Your task to perform on an android device: Search for flights from NYC to Mexico city Image 0: 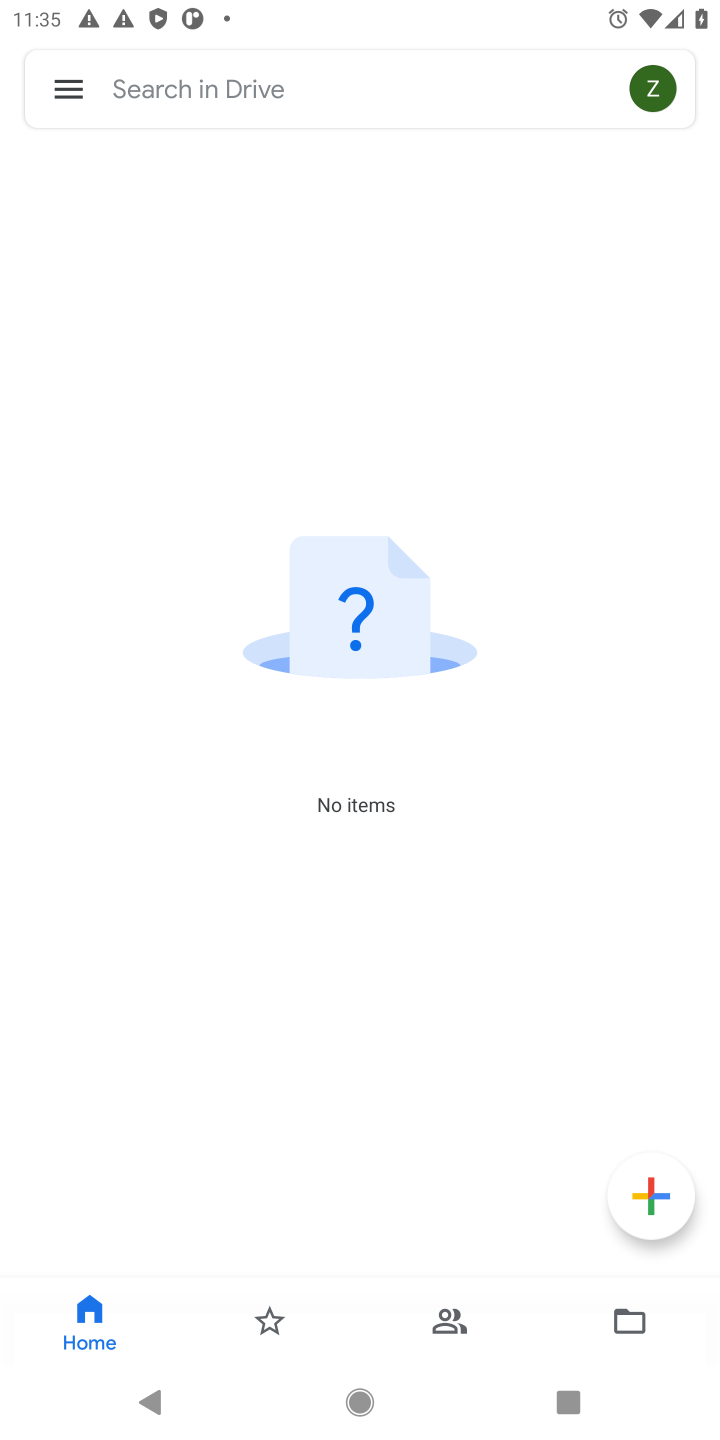
Step 0: press home button
Your task to perform on an android device: Search for flights from NYC to Mexico city Image 1: 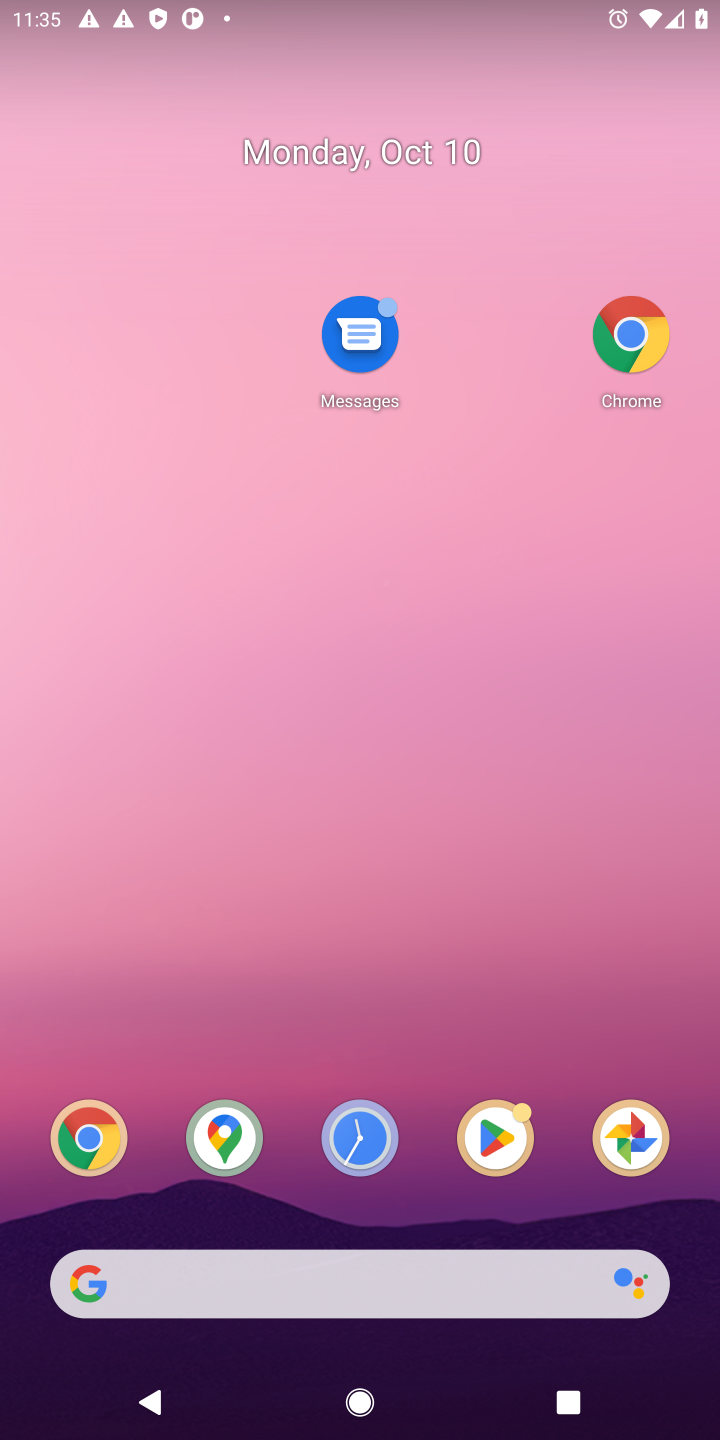
Step 1: click (621, 313)
Your task to perform on an android device: Search for flights from NYC to Mexico city Image 2: 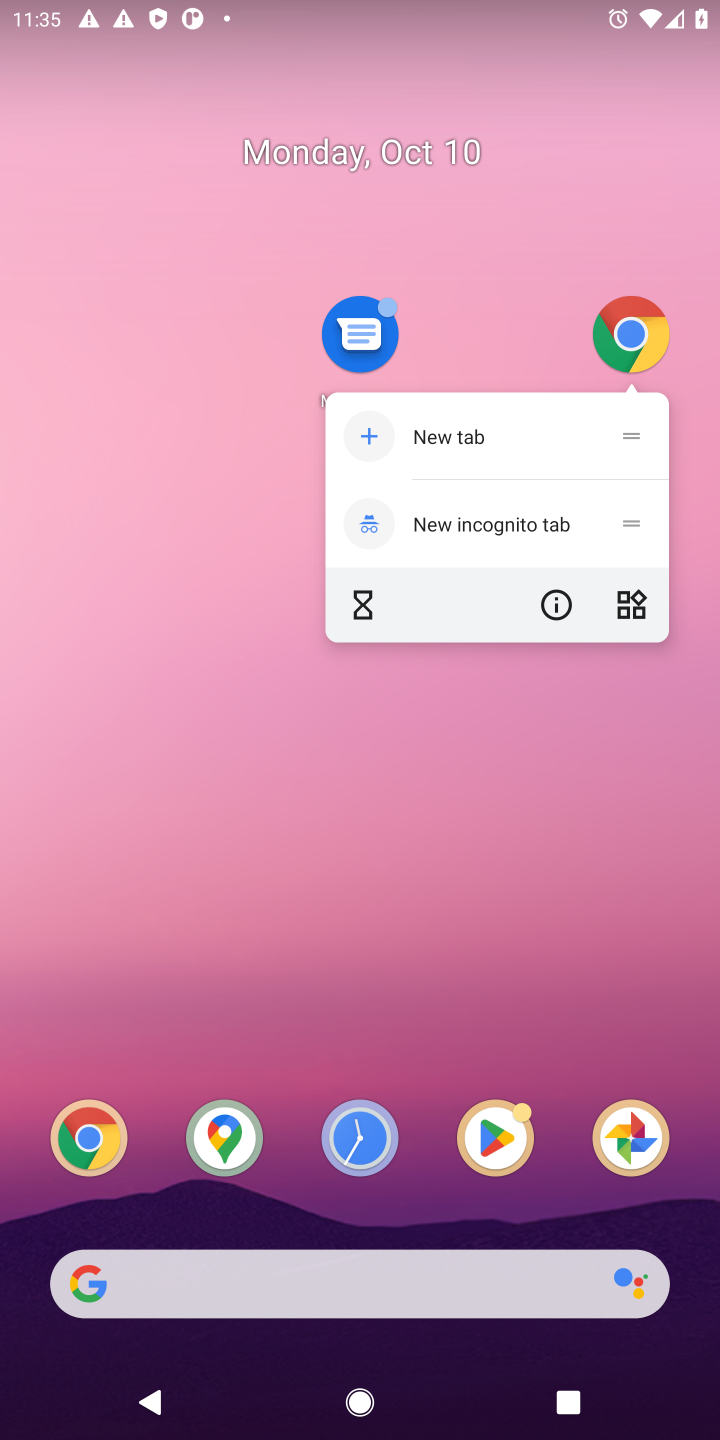
Step 2: click (626, 336)
Your task to perform on an android device: Search for flights from NYC to Mexico city Image 3: 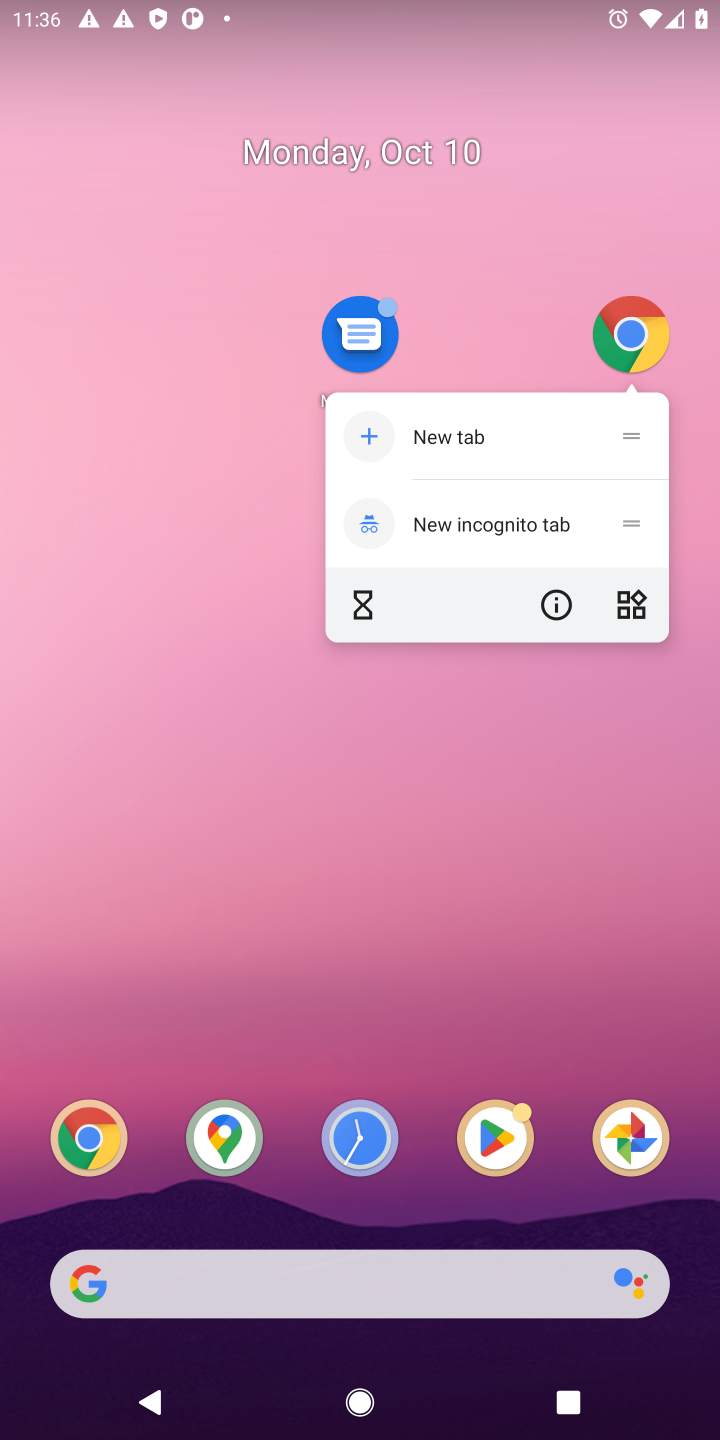
Step 3: click (642, 334)
Your task to perform on an android device: Search for flights from NYC to Mexico city Image 4: 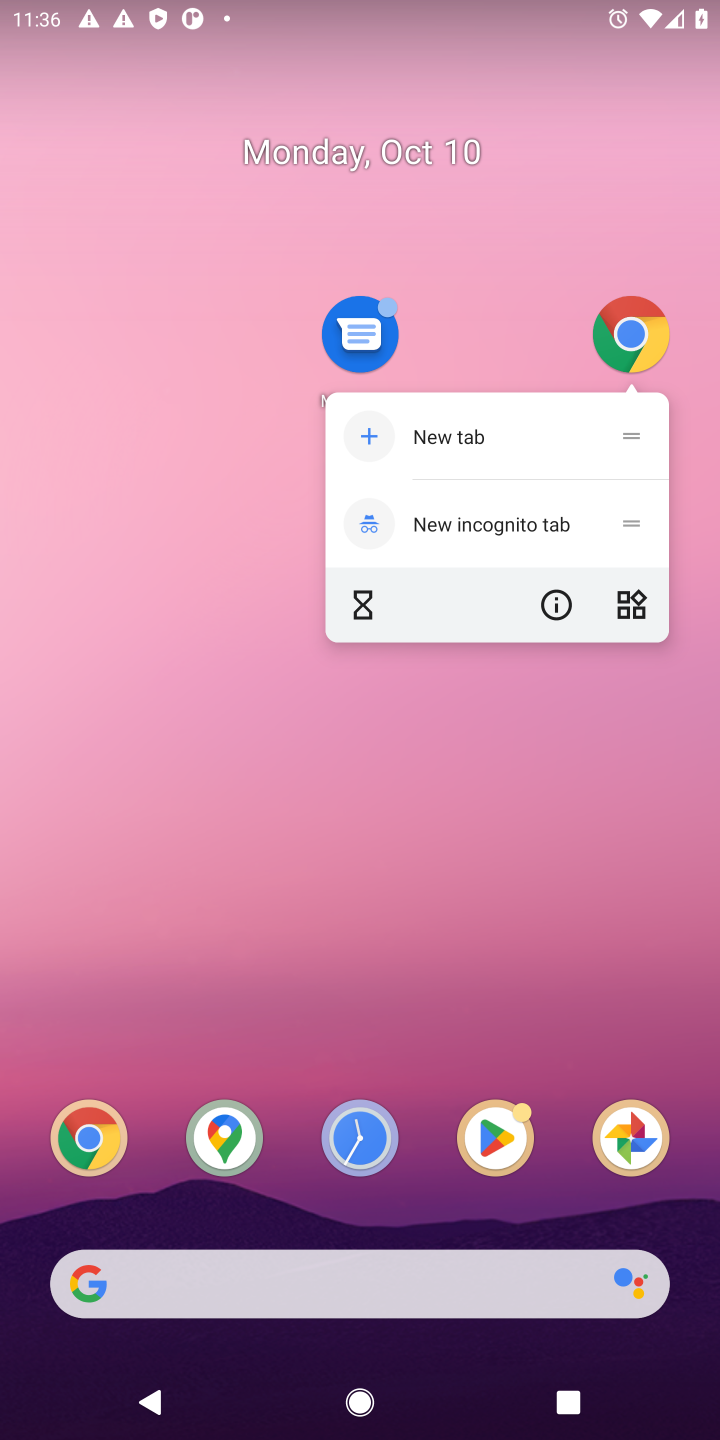
Step 4: click (626, 348)
Your task to perform on an android device: Search for flights from NYC to Mexico city Image 5: 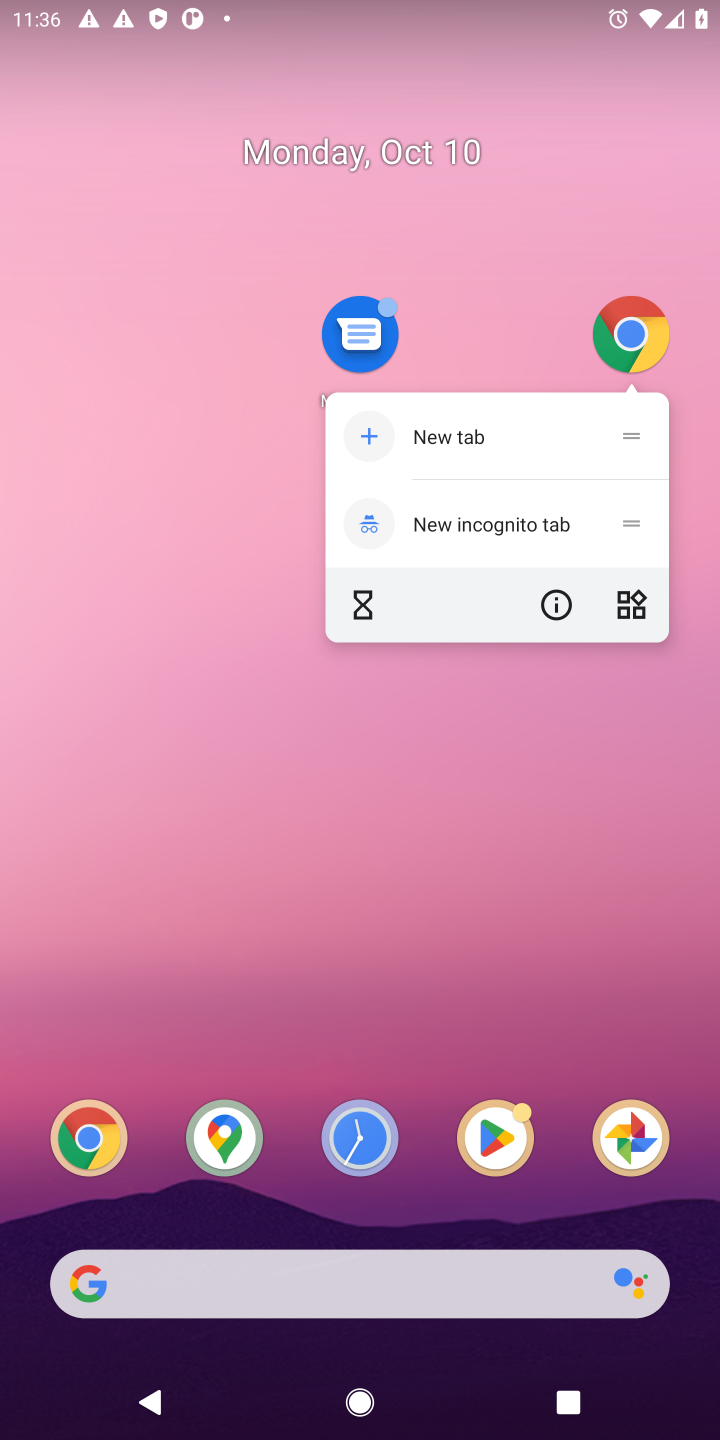
Step 5: click (82, 1146)
Your task to perform on an android device: Search for flights from NYC to Mexico city Image 6: 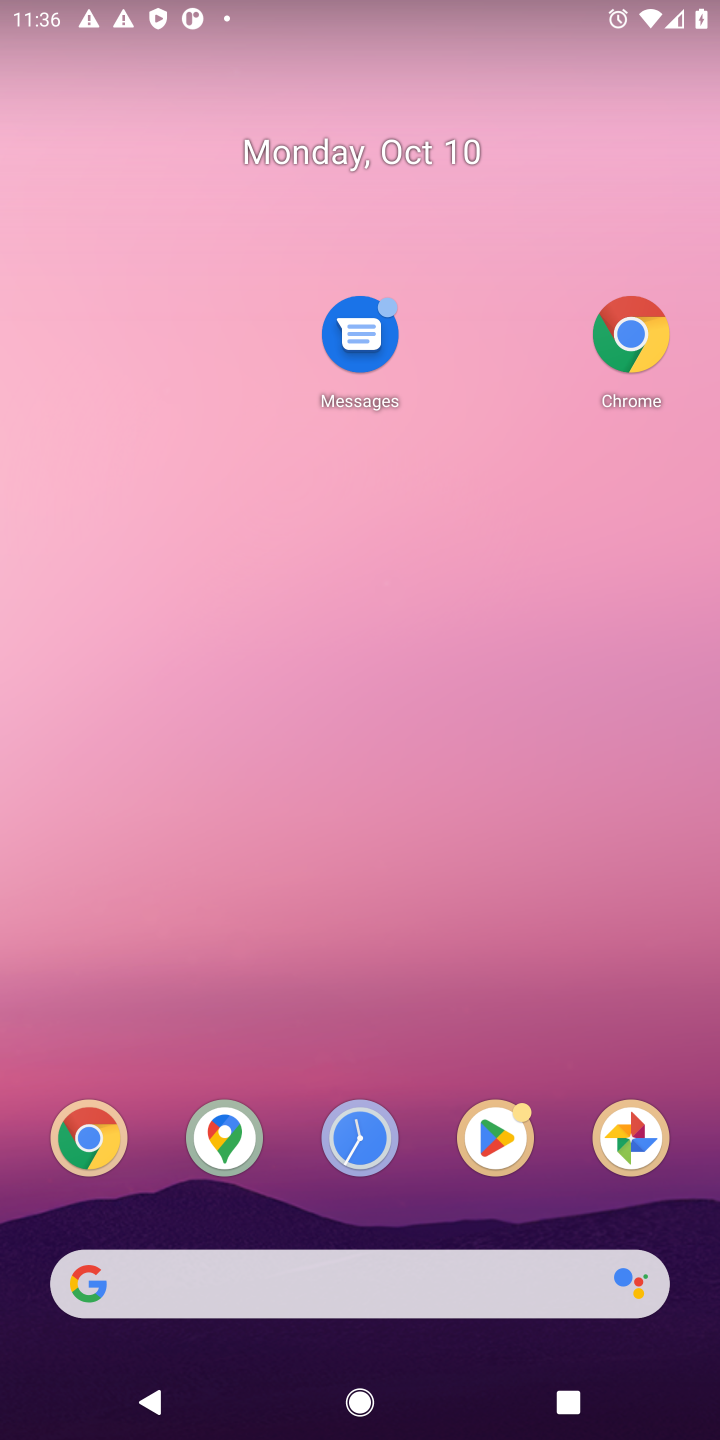
Step 6: click (84, 1154)
Your task to perform on an android device: Search for flights from NYC to Mexico city Image 7: 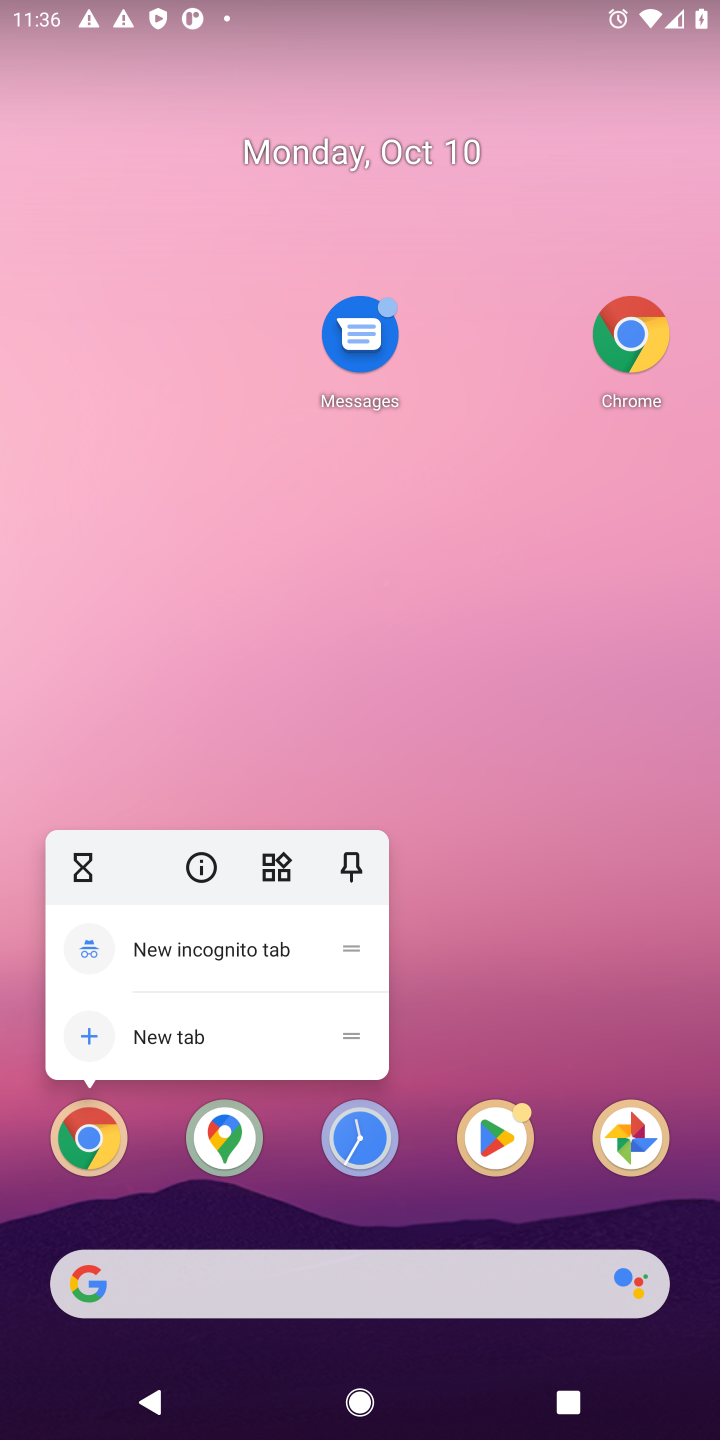
Step 7: click (92, 1158)
Your task to perform on an android device: Search for flights from NYC to Mexico city Image 8: 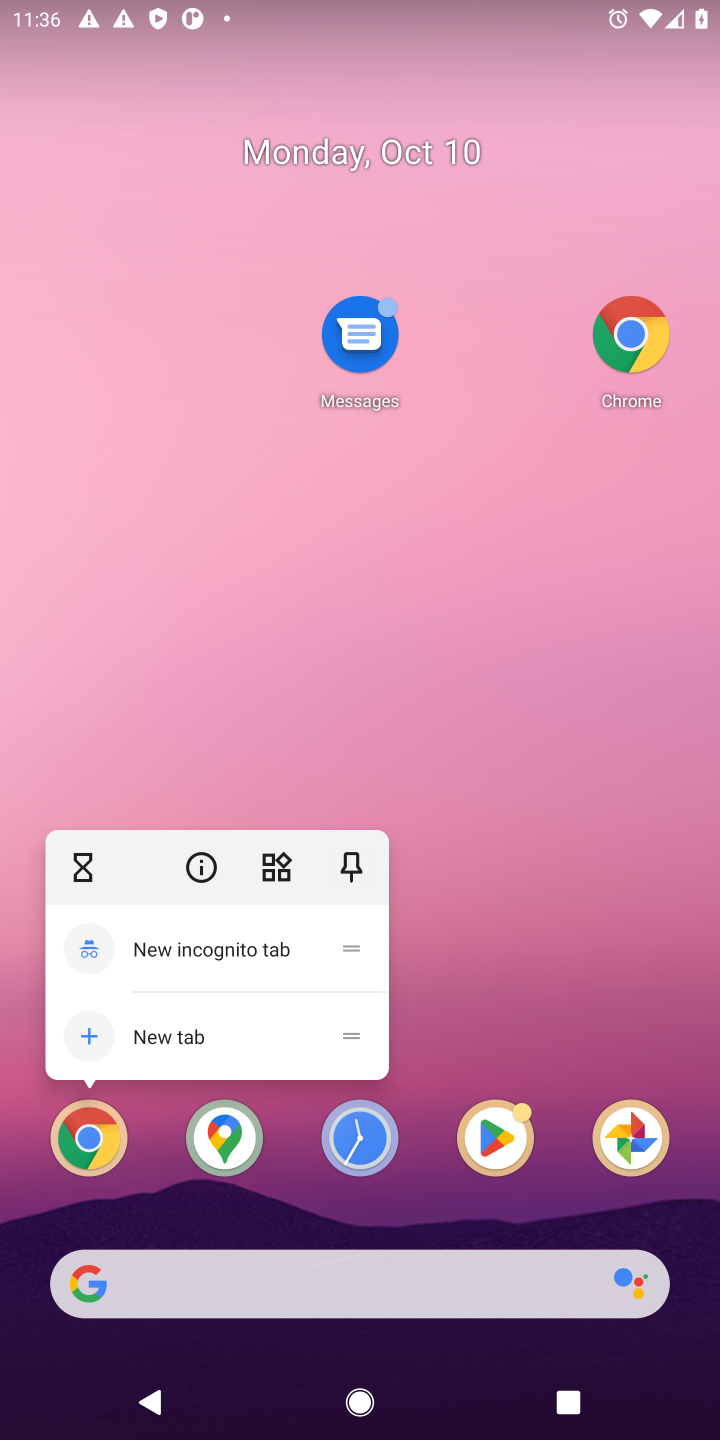
Step 8: click (653, 347)
Your task to perform on an android device: Search for flights from NYC to Mexico city Image 9: 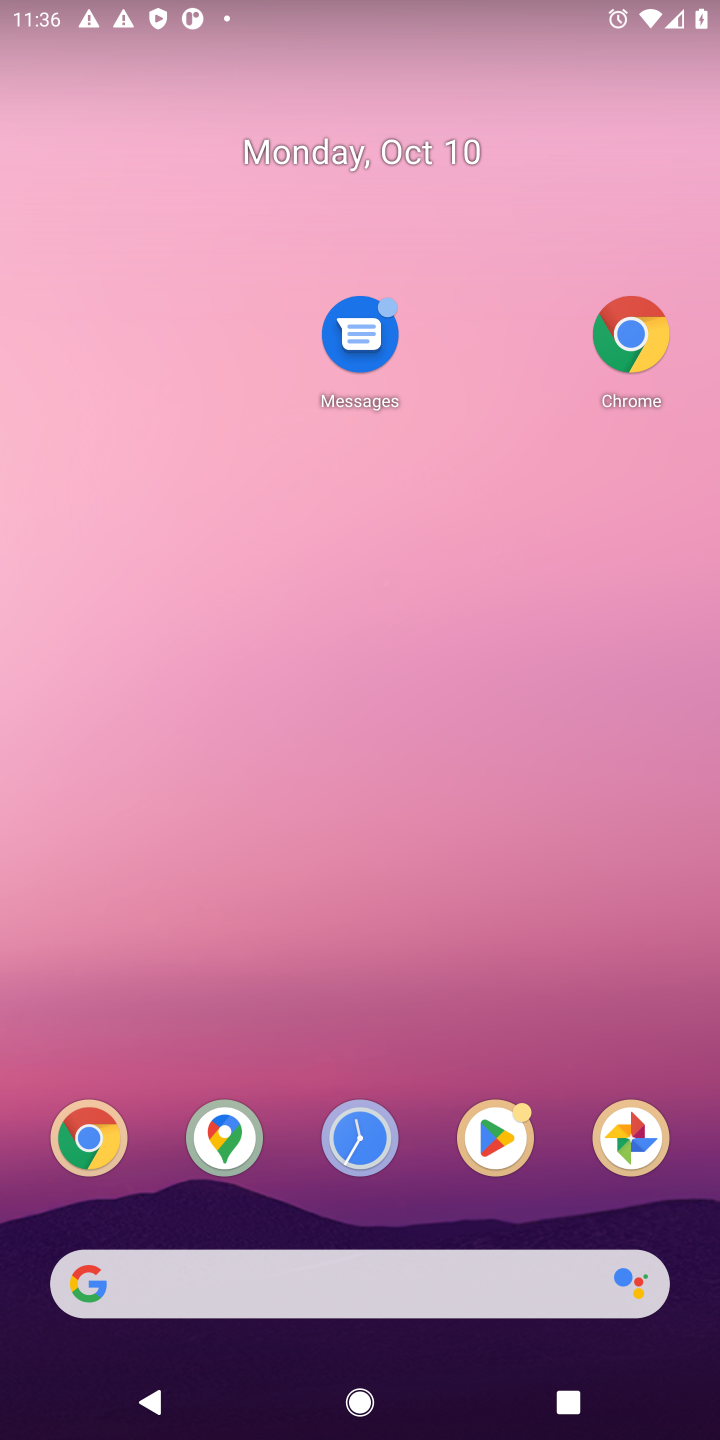
Step 9: click (651, 353)
Your task to perform on an android device: Search for flights from NYC to Mexico city Image 10: 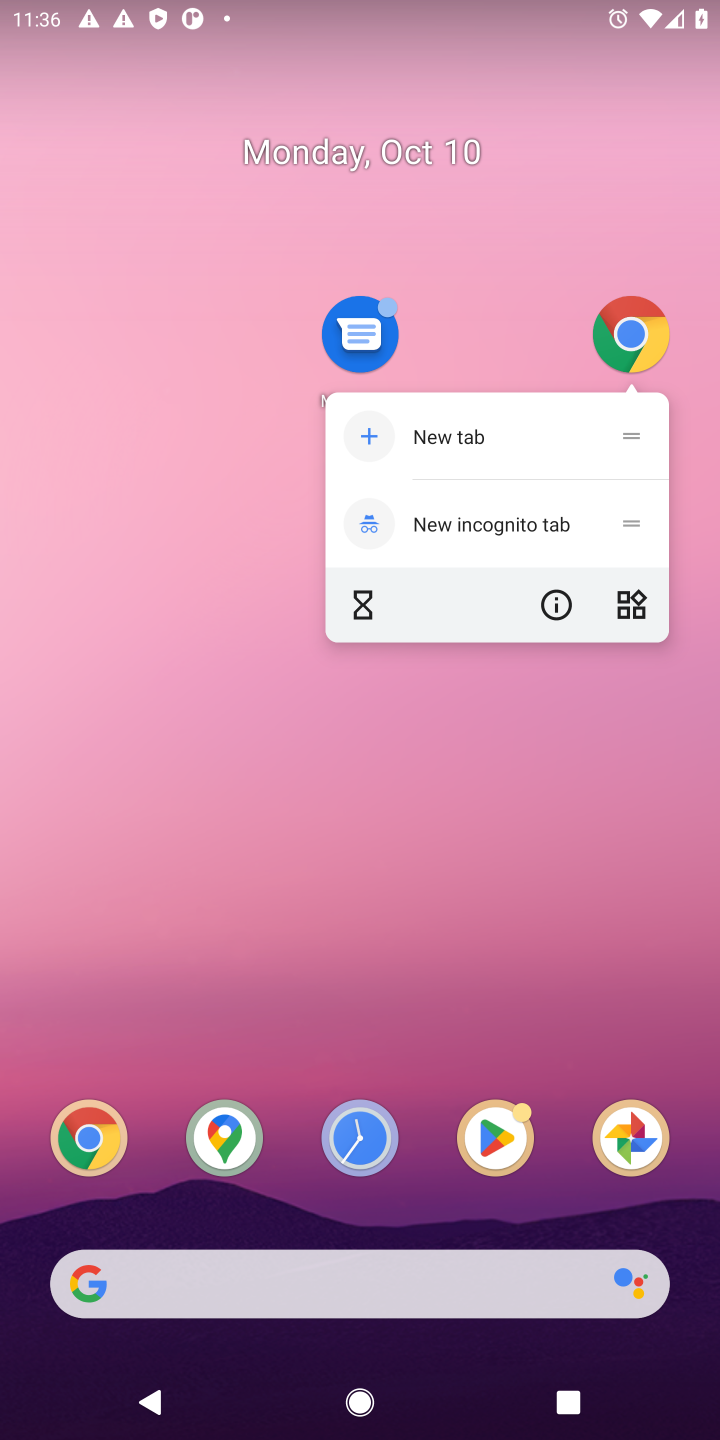
Step 10: click (663, 422)
Your task to perform on an android device: Search for flights from NYC to Mexico city Image 11: 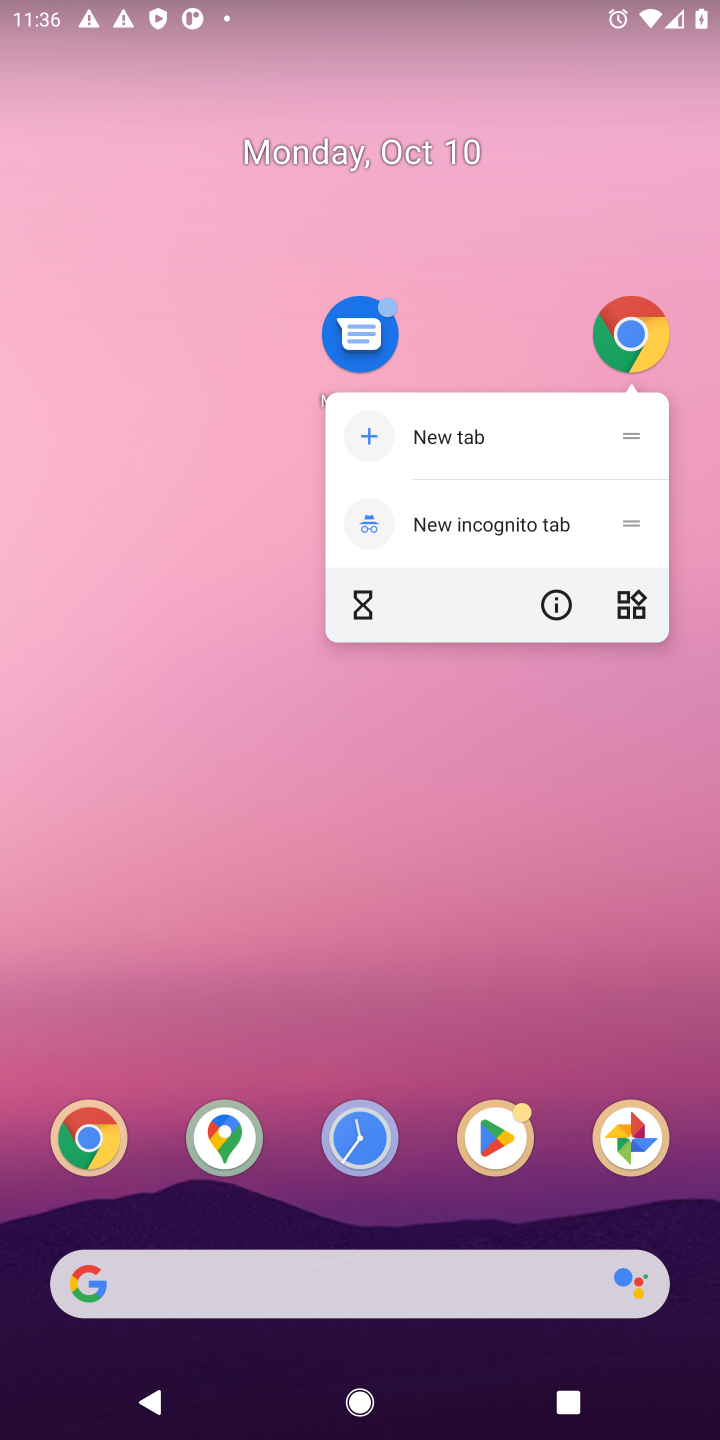
Step 11: click (634, 322)
Your task to perform on an android device: Search for flights from NYC to Mexico city Image 12: 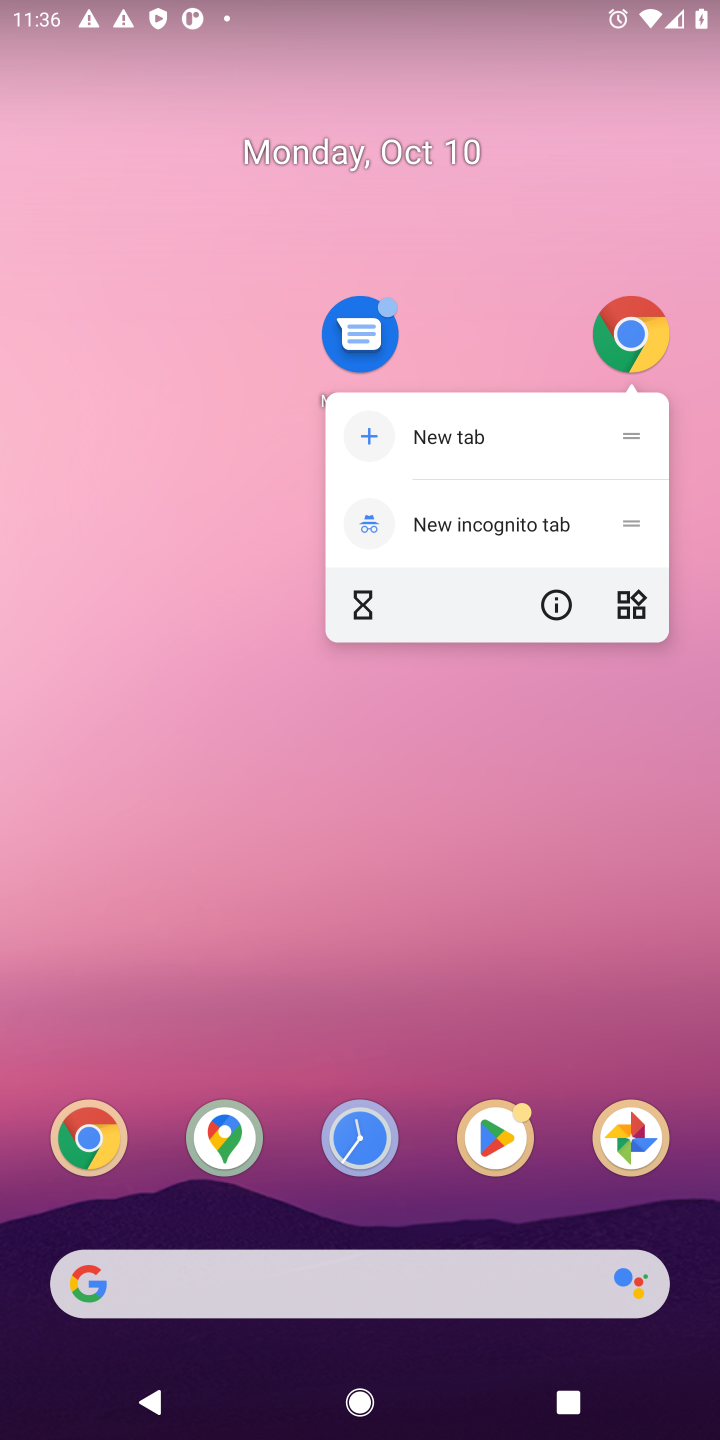
Step 12: click (634, 322)
Your task to perform on an android device: Search for flights from NYC to Mexico city Image 13: 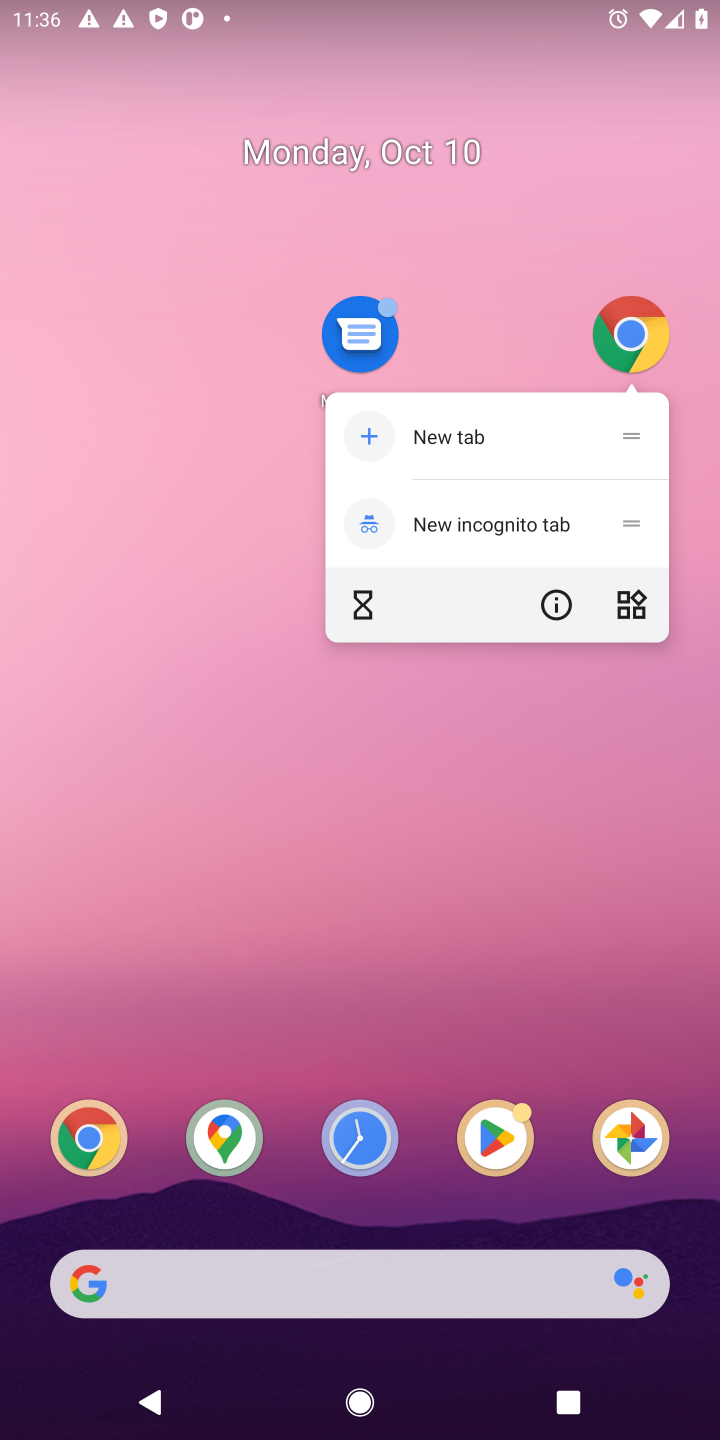
Step 13: click (634, 322)
Your task to perform on an android device: Search for flights from NYC to Mexico city Image 14: 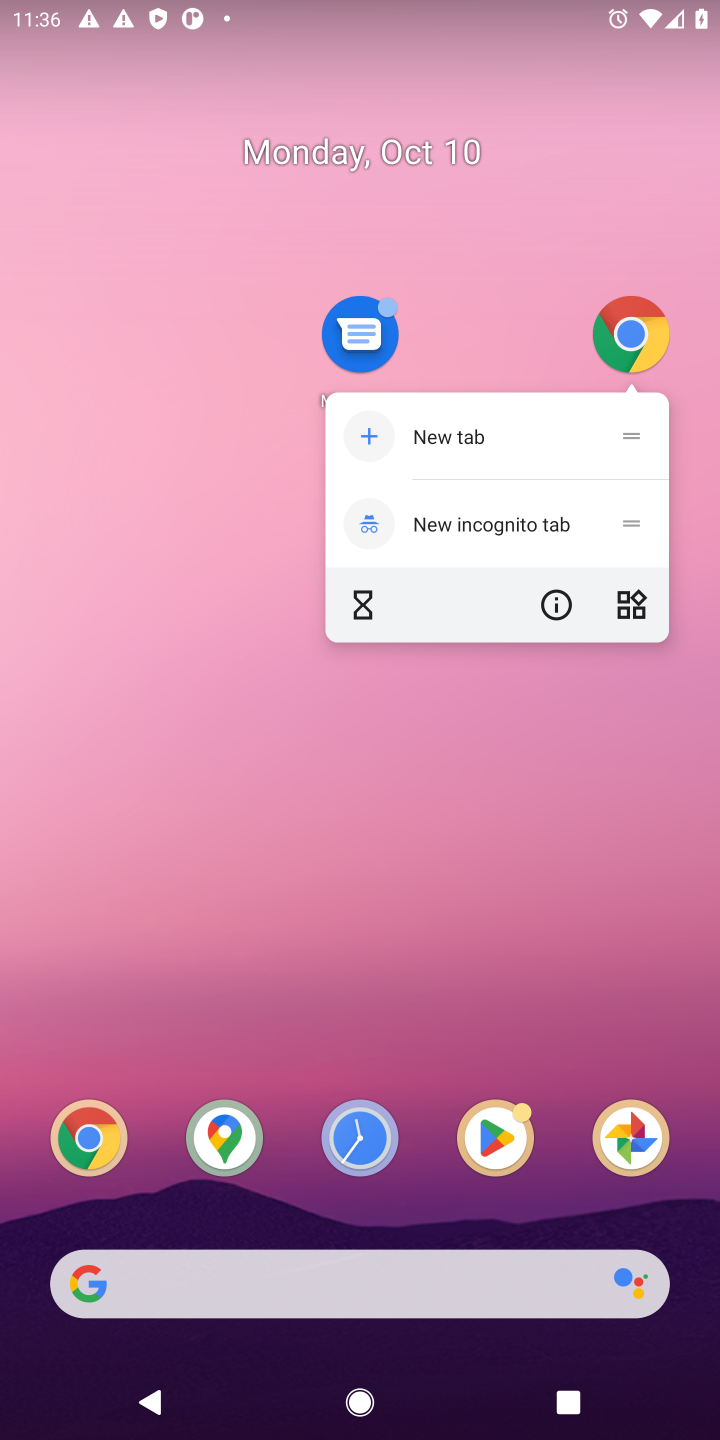
Step 14: click (641, 332)
Your task to perform on an android device: Search for flights from NYC to Mexico city Image 15: 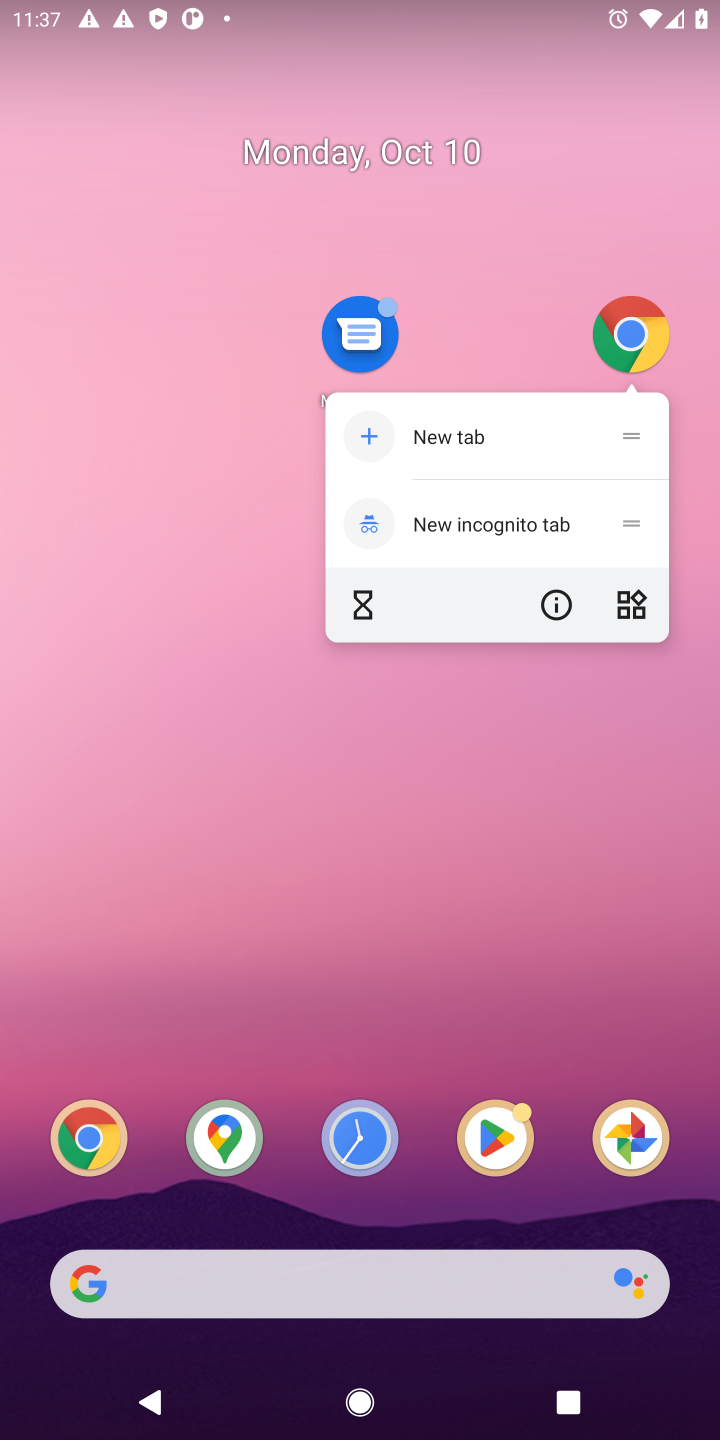
Step 15: click (658, 378)
Your task to perform on an android device: Search for flights from NYC to Mexico city Image 16: 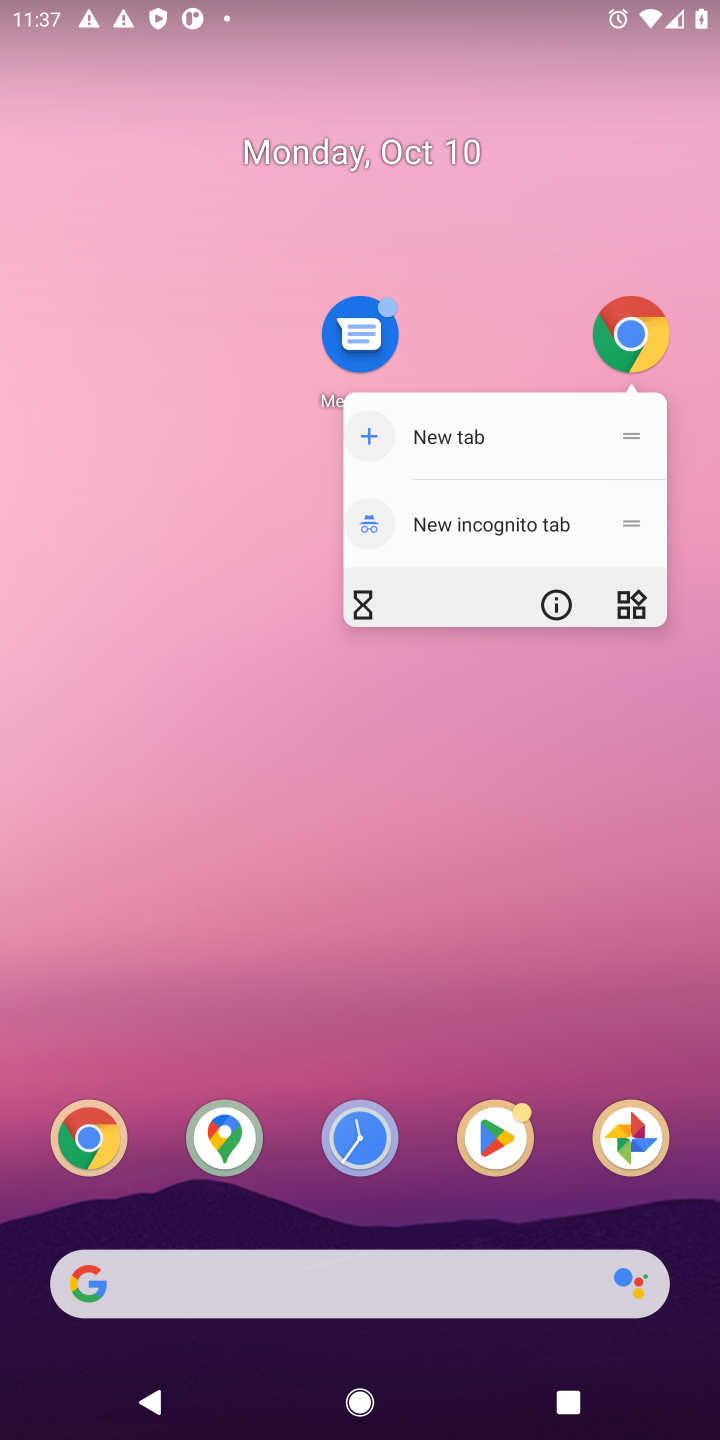
Step 16: click (628, 338)
Your task to perform on an android device: Search for flights from NYC to Mexico city Image 17: 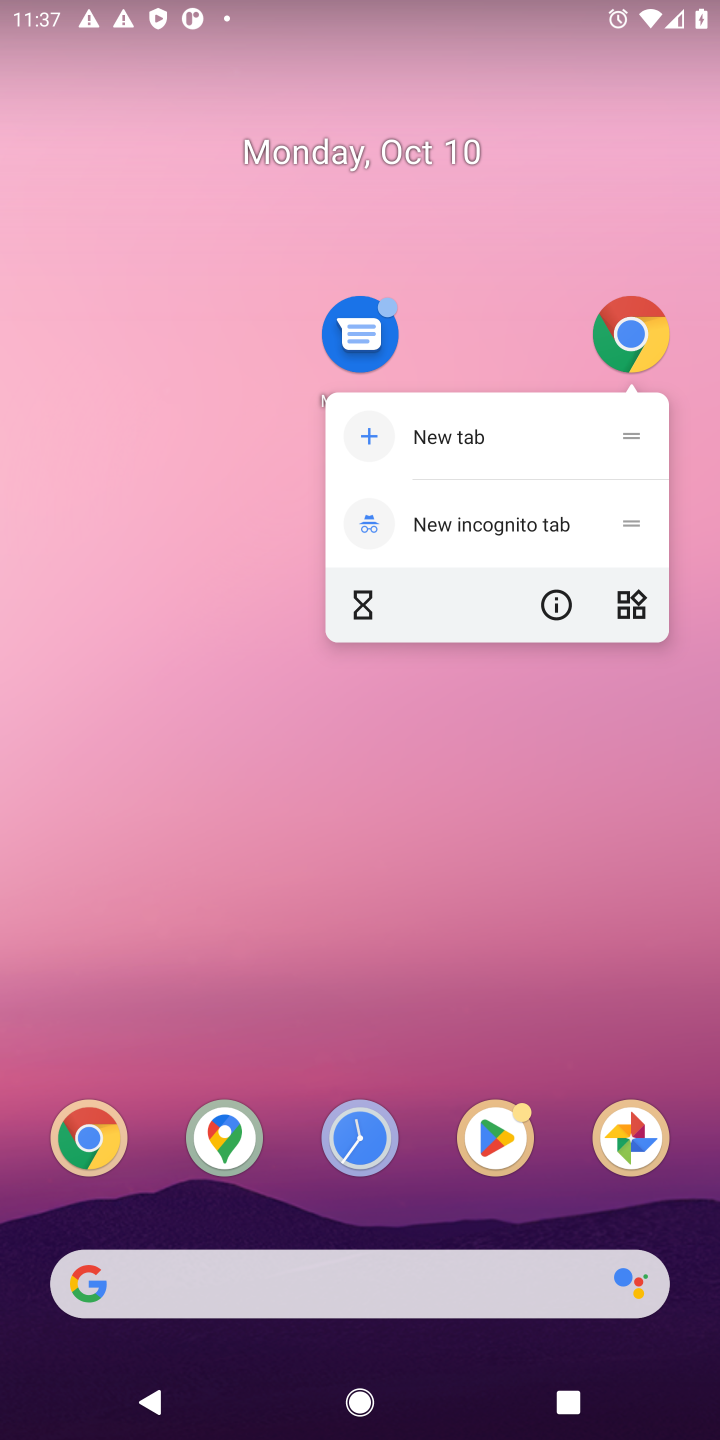
Step 17: click (646, 337)
Your task to perform on an android device: Search for flights from NYC to Mexico city Image 18: 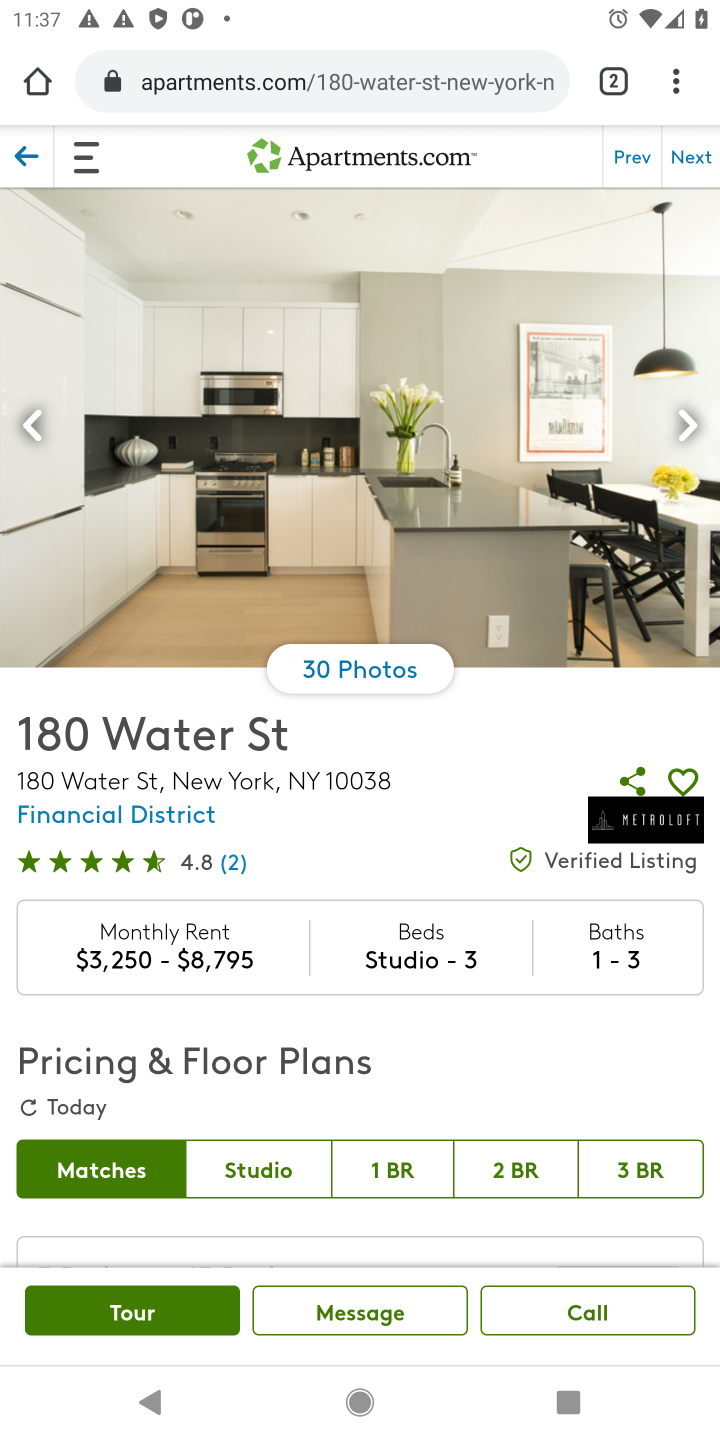
Step 18: click (349, 91)
Your task to perform on an android device: Search for flights from NYC to Mexico city Image 19: 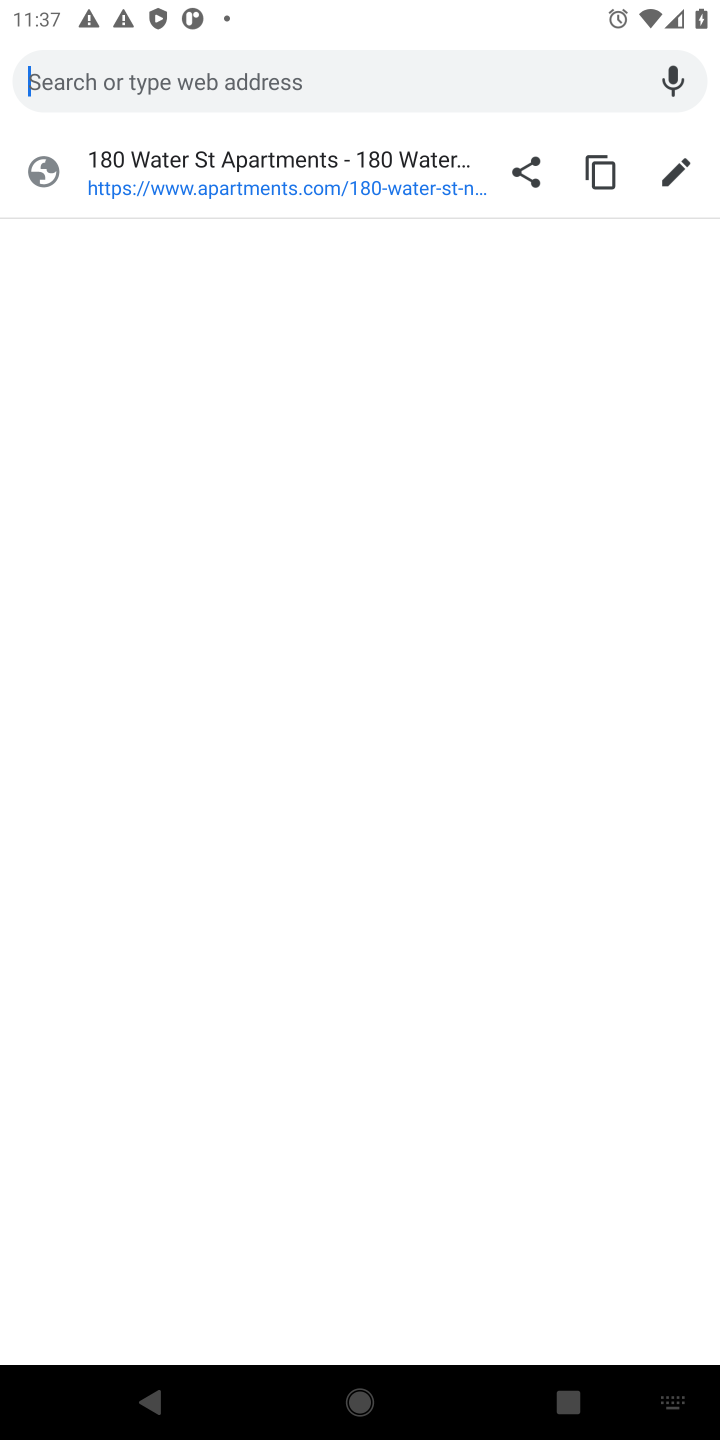
Step 19: type "flights from NYC to Mexico City"
Your task to perform on an android device: Search for flights from NYC to Mexico city Image 20: 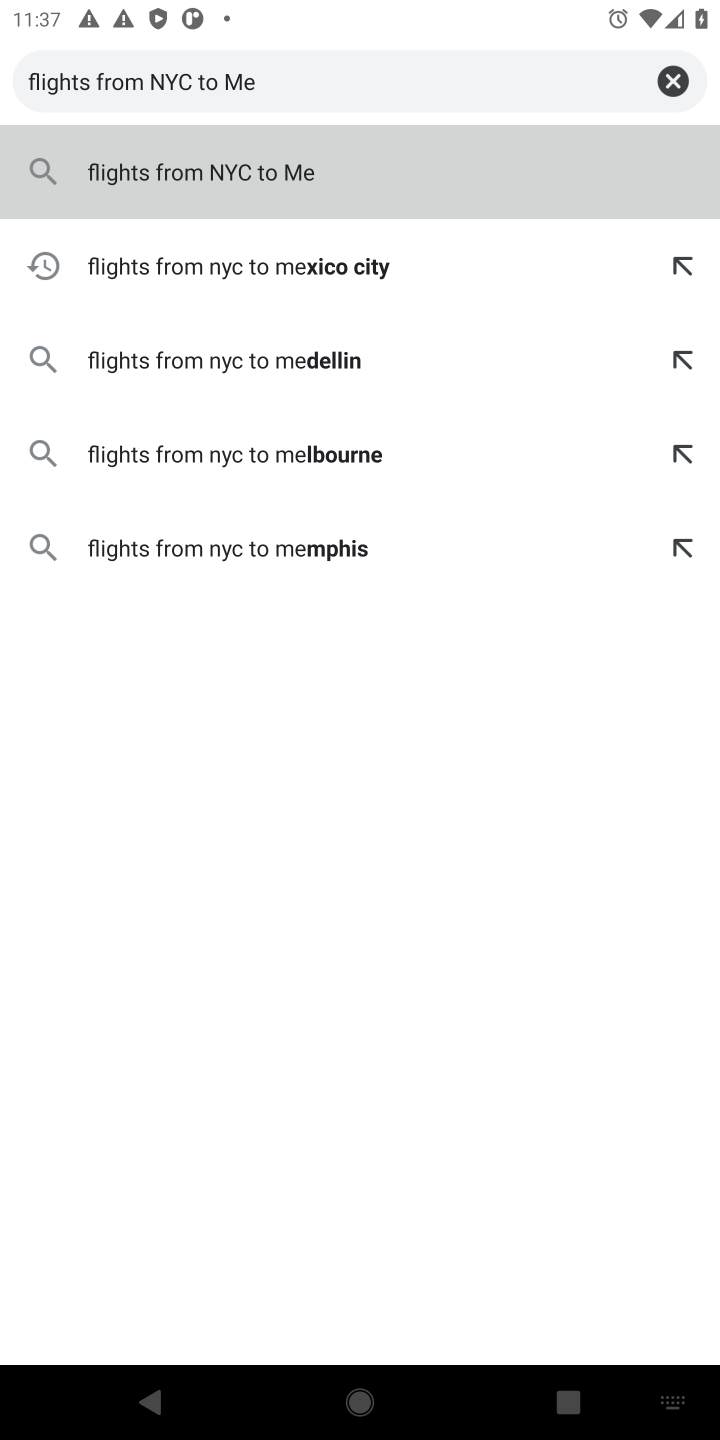
Step 20: press enter
Your task to perform on an android device: Search for flights from NYC to Mexico city Image 21: 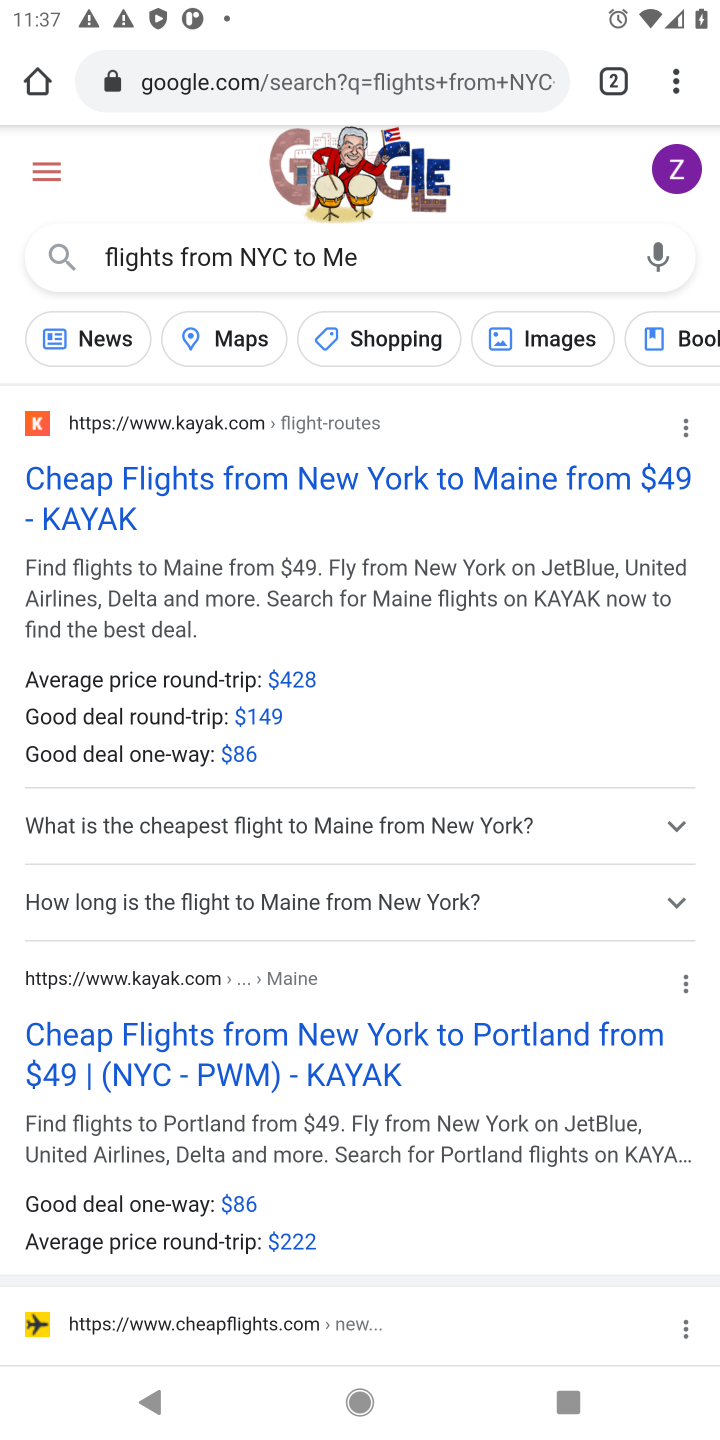
Step 21: click (447, 253)
Your task to perform on an android device: Search for flights from NYC to Mexico city Image 22: 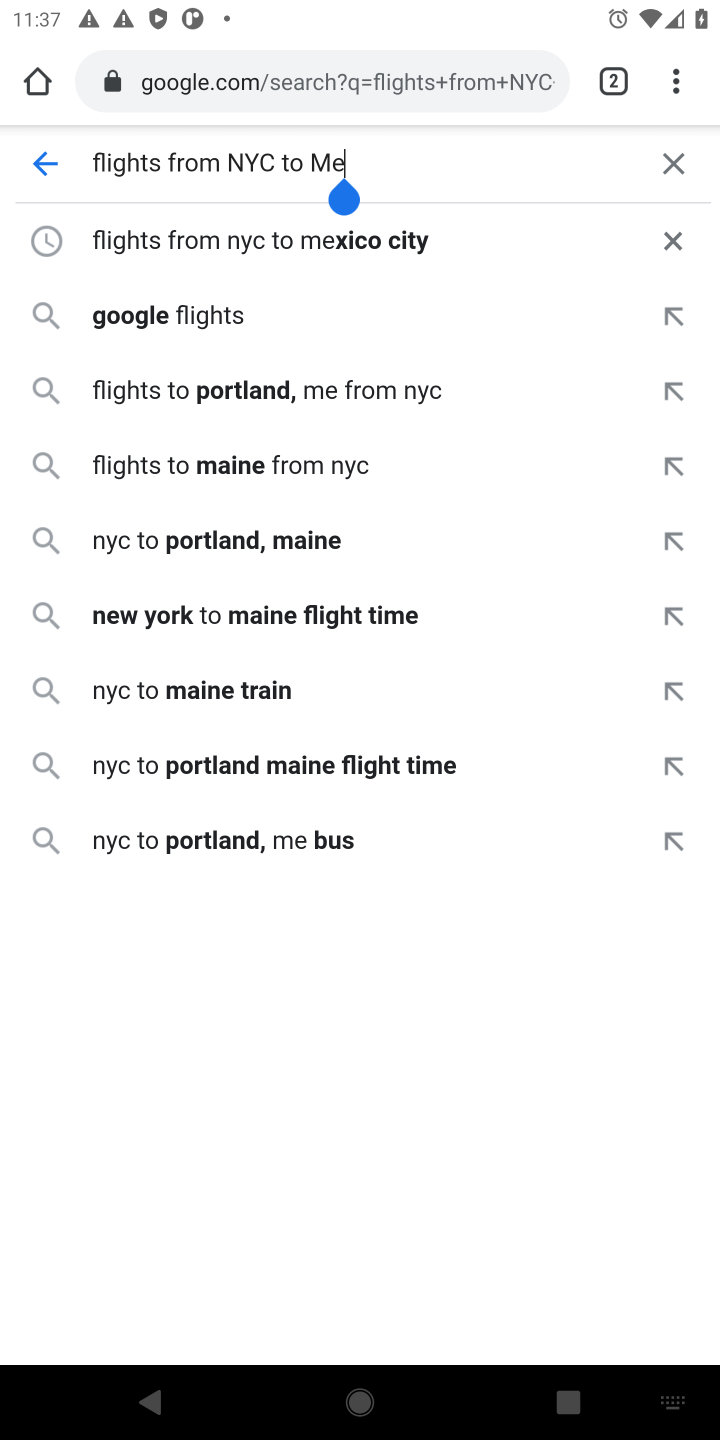
Step 22: click (502, 226)
Your task to perform on an android device: Search for flights from NYC to Mexico city Image 23: 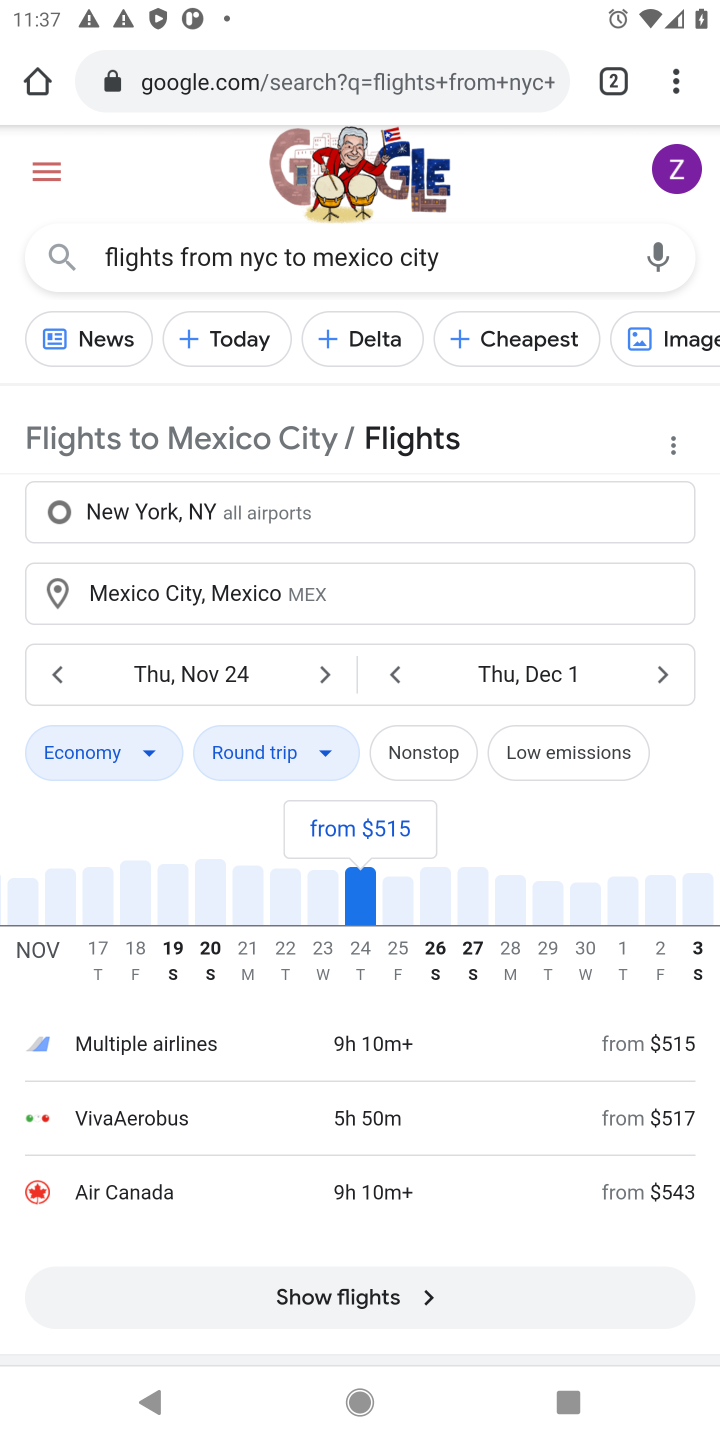
Step 23: drag from (443, 1065) to (417, 859)
Your task to perform on an android device: Search for flights from NYC to Mexico city Image 24: 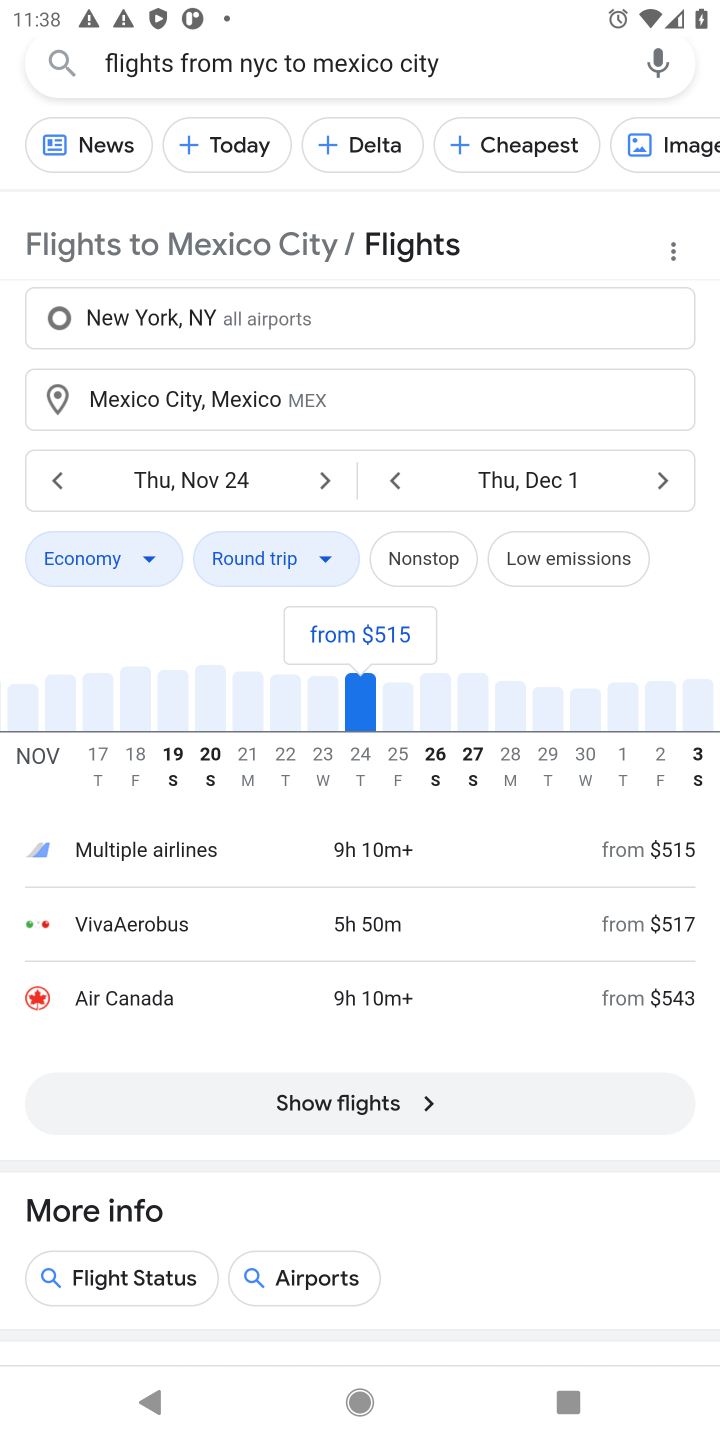
Step 24: click (424, 1100)
Your task to perform on an android device: Search for flights from NYC to Mexico city Image 25: 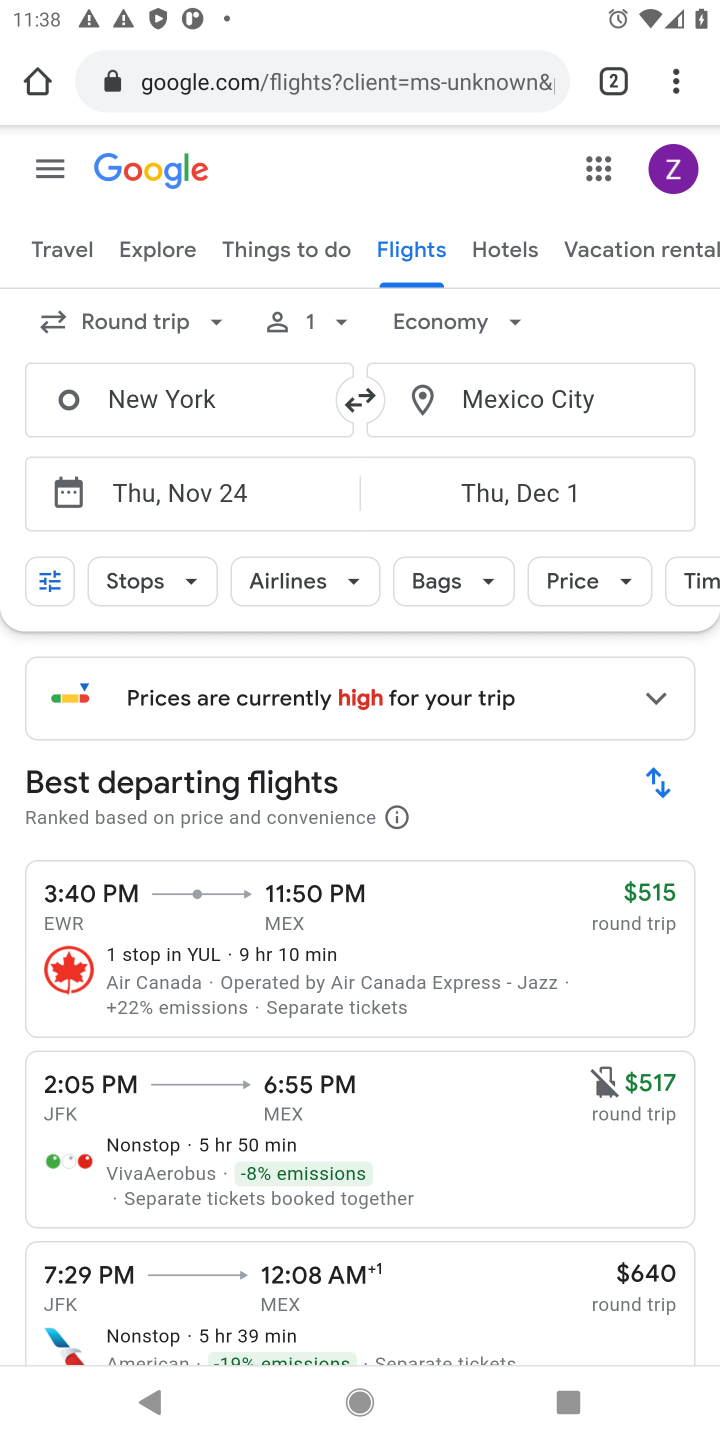
Step 25: task complete